Your task to perform on an android device: Open Chrome and go to settings Image 0: 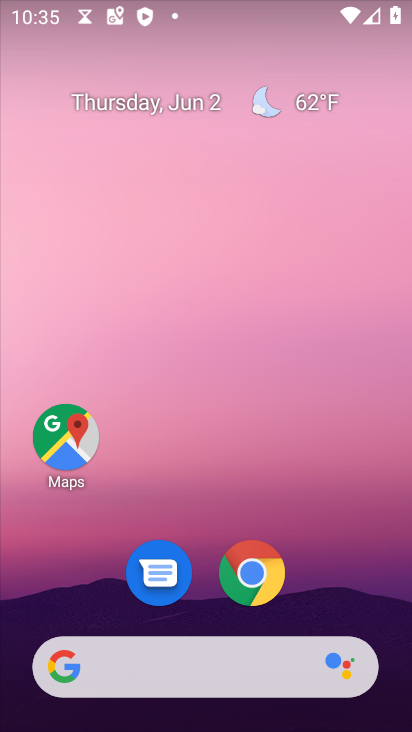
Step 0: click (254, 575)
Your task to perform on an android device: Open Chrome and go to settings Image 1: 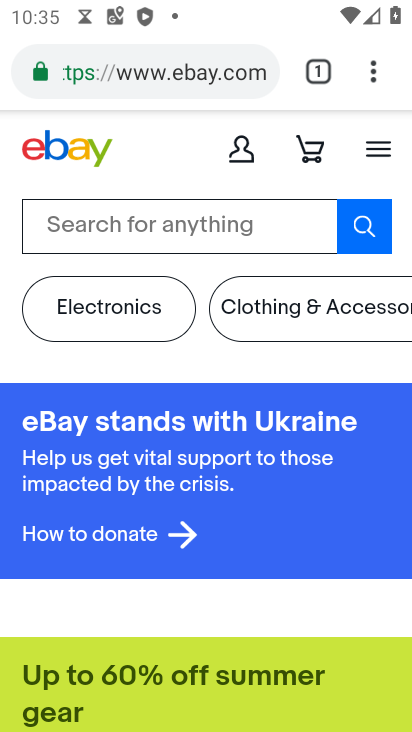
Step 1: click (373, 68)
Your task to perform on an android device: Open Chrome and go to settings Image 2: 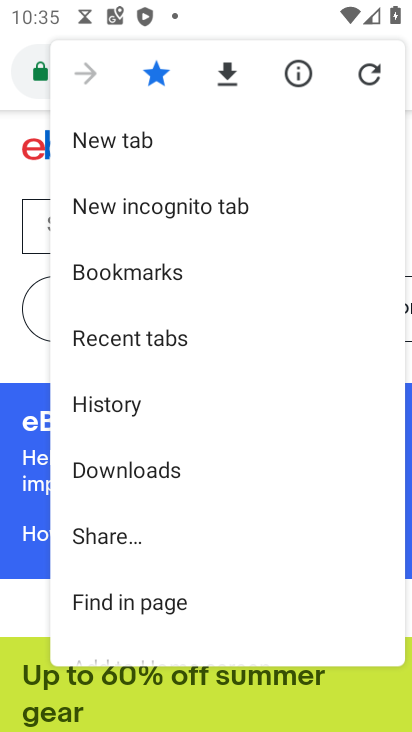
Step 2: drag from (109, 383) to (147, 296)
Your task to perform on an android device: Open Chrome and go to settings Image 3: 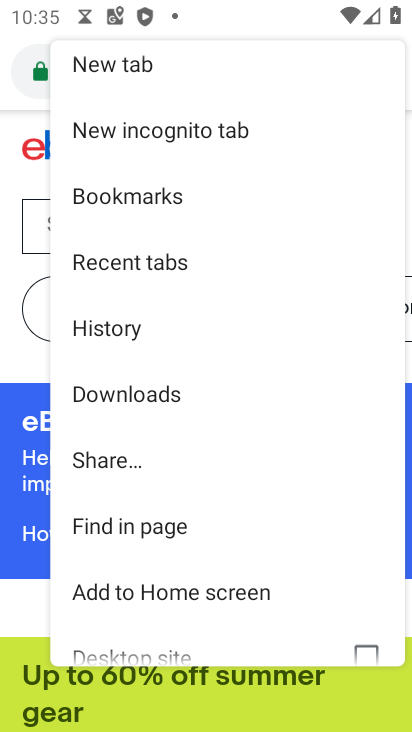
Step 3: drag from (148, 419) to (183, 350)
Your task to perform on an android device: Open Chrome and go to settings Image 4: 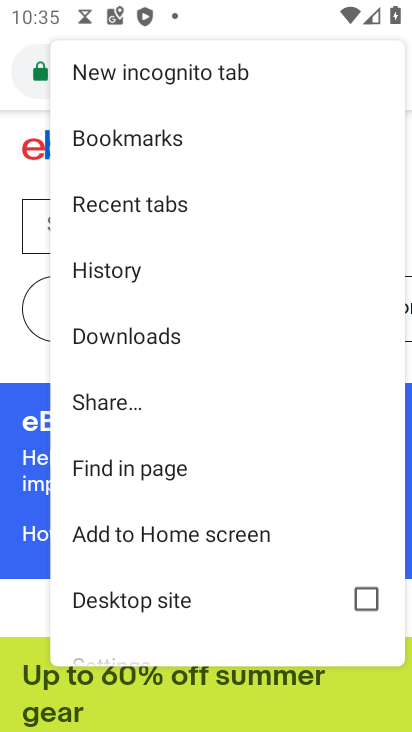
Step 4: drag from (135, 436) to (197, 344)
Your task to perform on an android device: Open Chrome and go to settings Image 5: 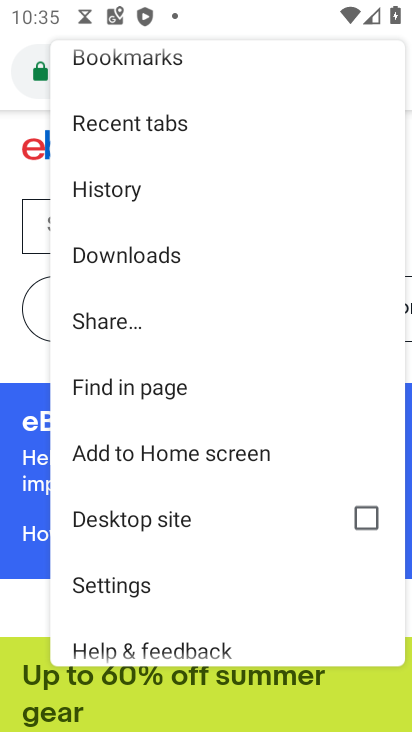
Step 5: drag from (132, 478) to (216, 363)
Your task to perform on an android device: Open Chrome and go to settings Image 6: 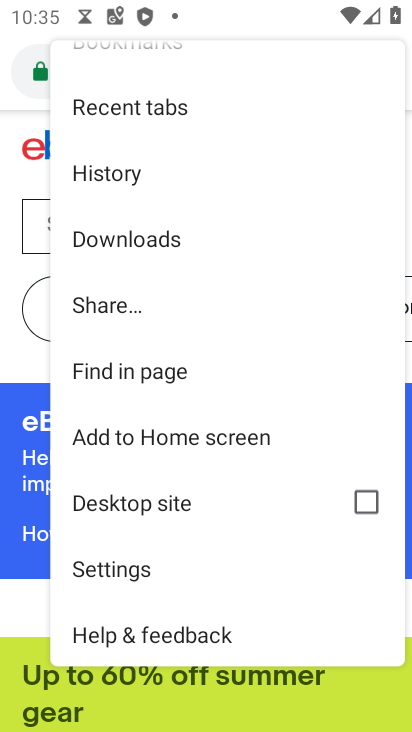
Step 6: click (122, 567)
Your task to perform on an android device: Open Chrome and go to settings Image 7: 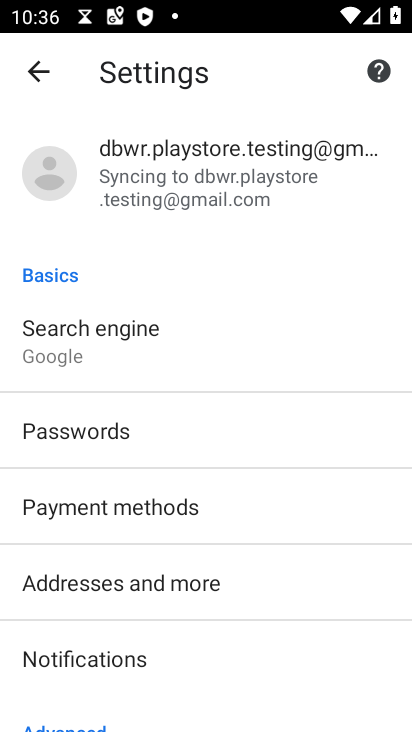
Step 7: task complete